Your task to perform on an android device: change notifications settings Image 0: 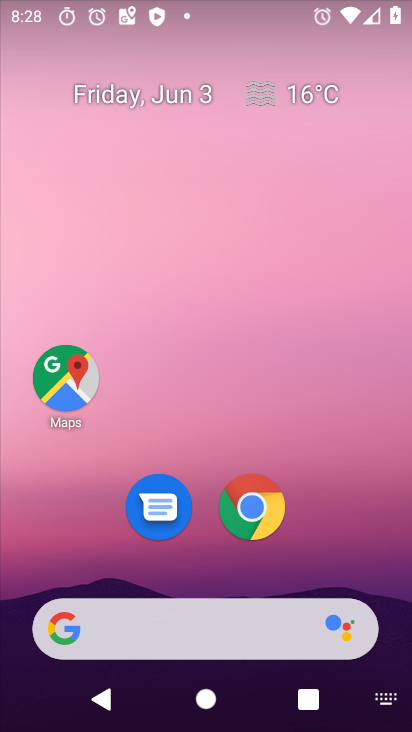
Step 0: drag from (333, 539) to (175, 46)
Your task to perform on an android device: change notifications settings Image 1: 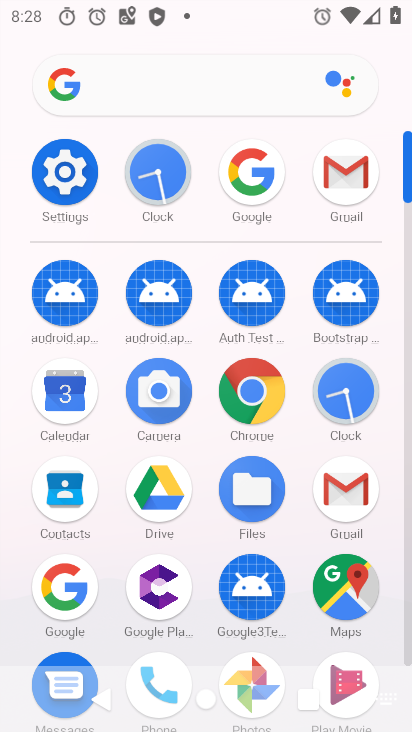
Step 1: click (74, 183)
Your task to perform on an android device: change notifications settings Image 2: 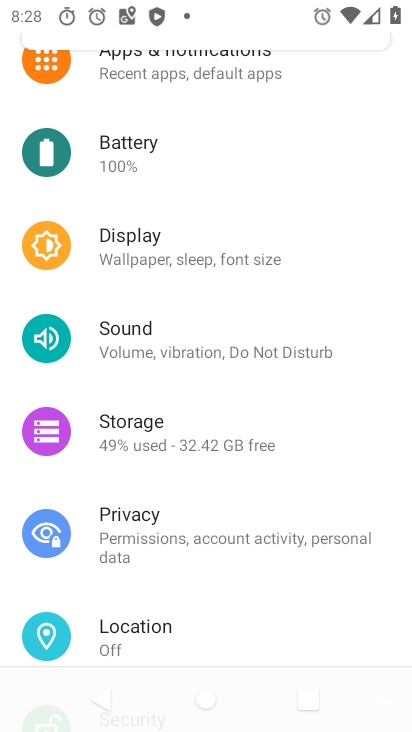
Step 2: click (209, 64)
Your task to perform on an android device: change notifications settings Image 3: 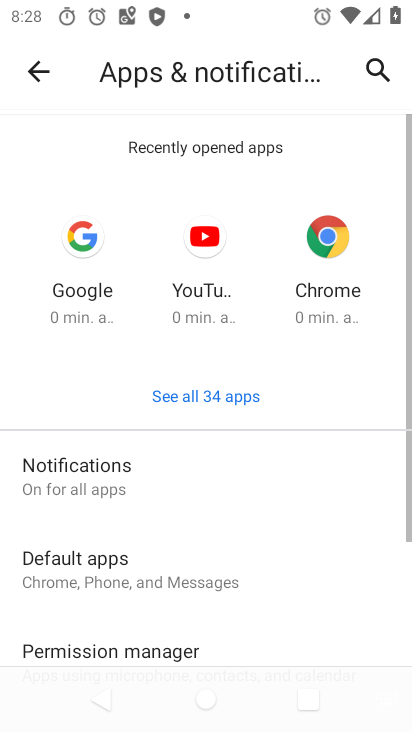
Step 3: click (233, 463)
Your task to perform on an android device: change notifications settings Image 4: 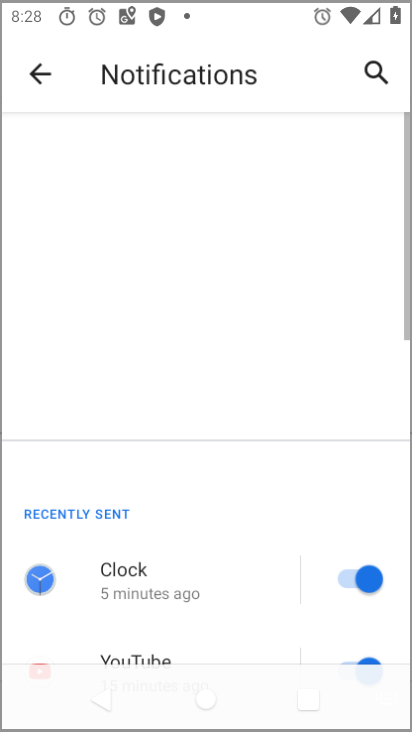
Step 4: drag from (251, 630) to (212, 163)
Your task to perform on an android device: change notifications settings Image 5: 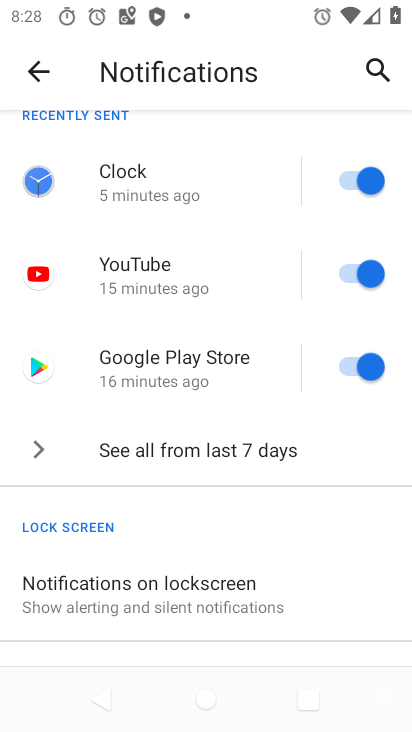
Step 5: click (368, 189)
Your task to perform on an android device: change notifications settings Image 6: 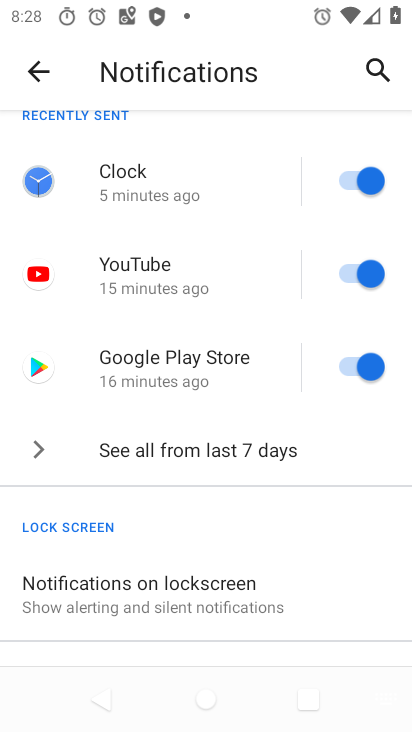
Step 6: click (358, 284)
Your task to perform on an android device: change notifications settings Image 7: 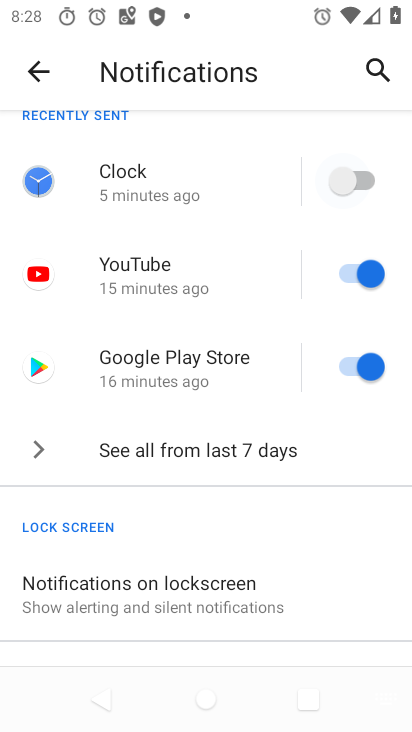
Step 7: click (356, 335)
Your task to perform on an android device: change notifications settings Image 8: 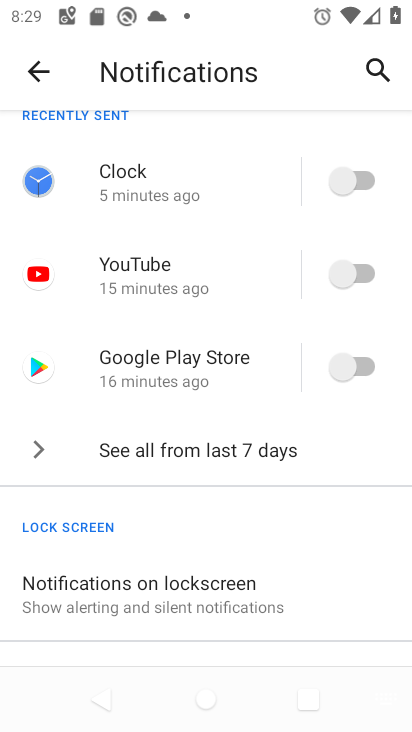
Step 8: task complete